Your task to perform on an android device: Go to Amazon Image 0: 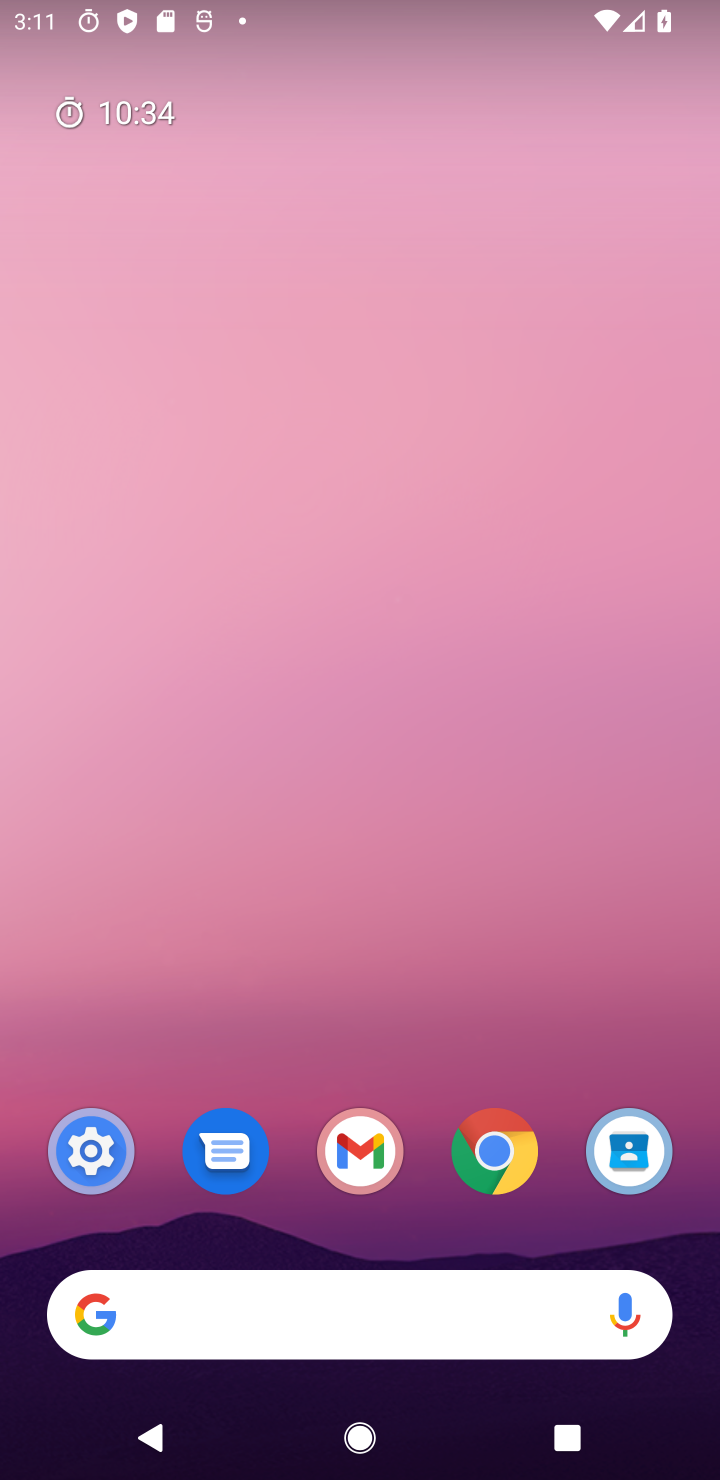
Step 0: drag from (374, 897) to (364, 103)
Your task to perform on an android device: Go to Amazon Image 1: 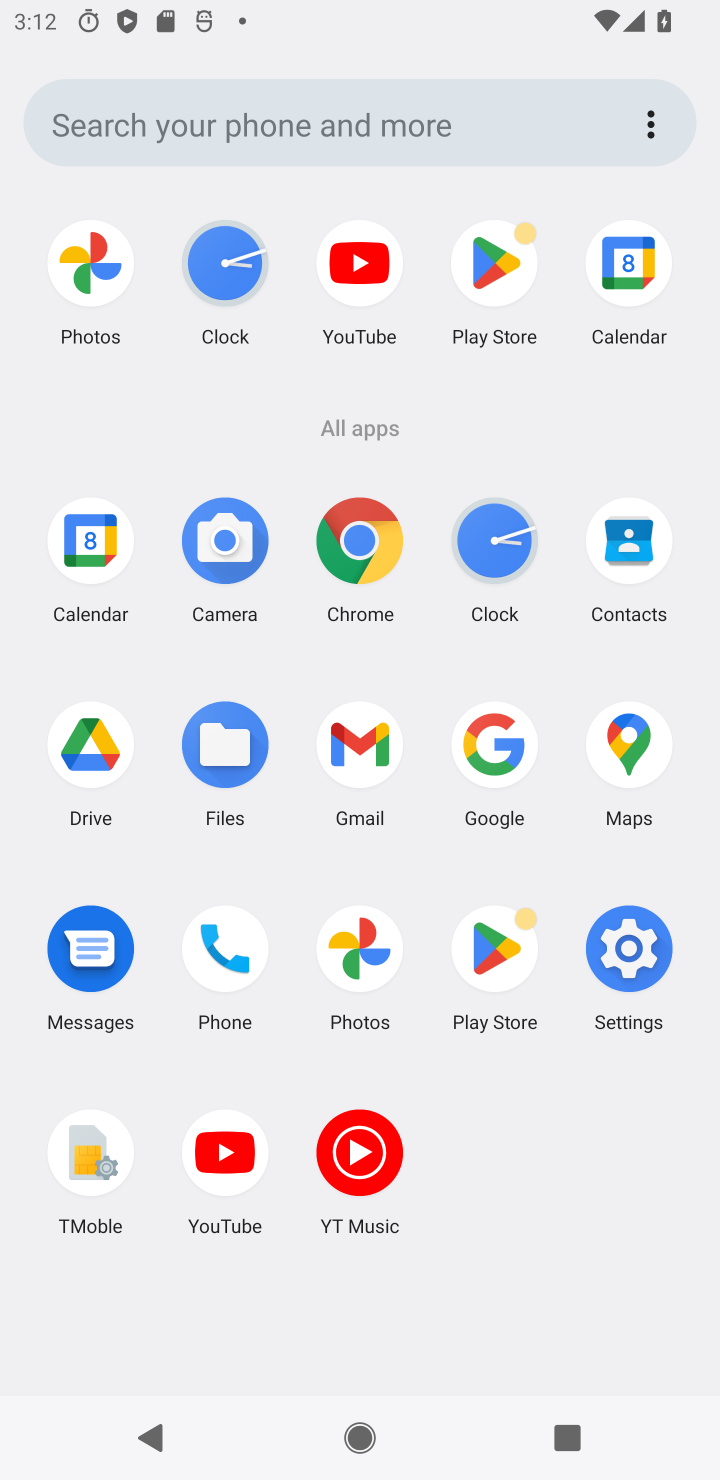
Step 1: click (349, 584)
Your task to perform on an android device: Go to Amazon Image 2: 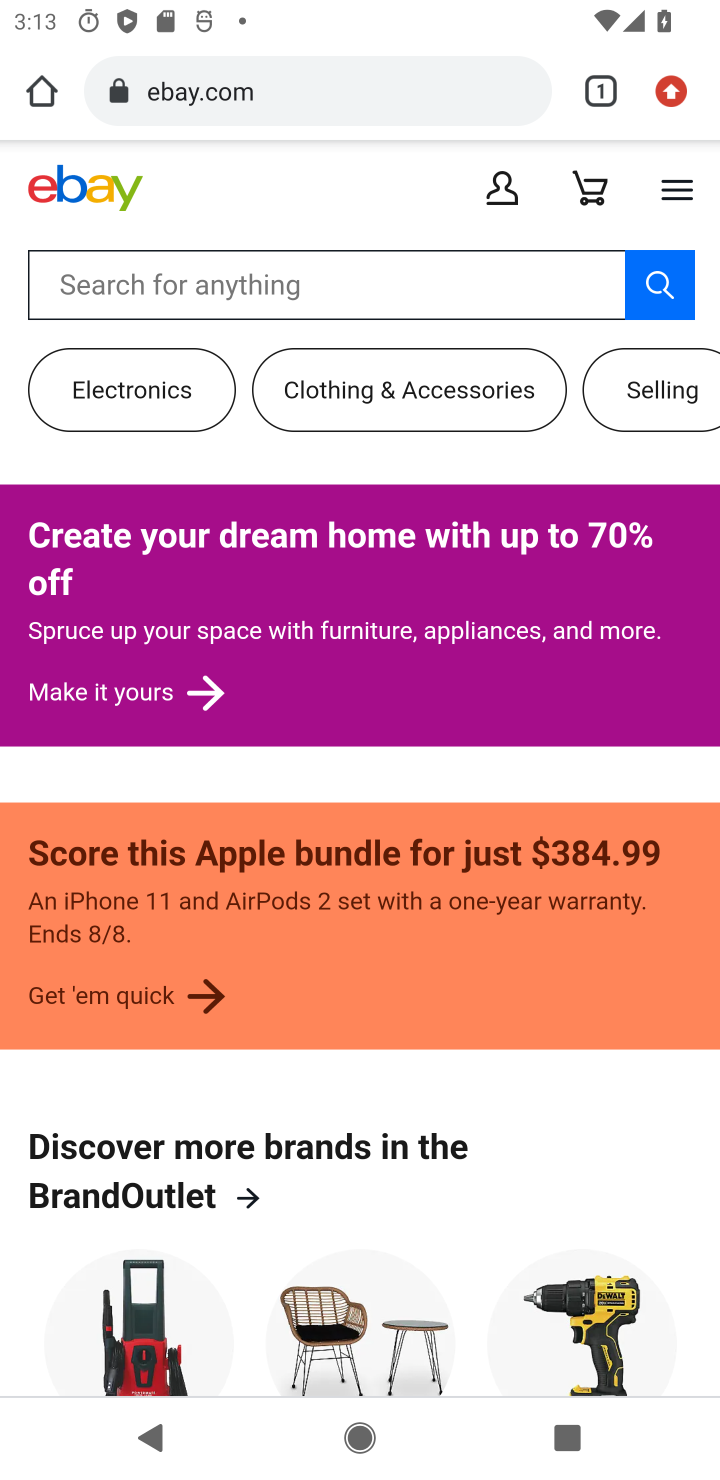
Step 2: click (255, 104)
Your task to perform on an android device: Go to Amazon Image 3: 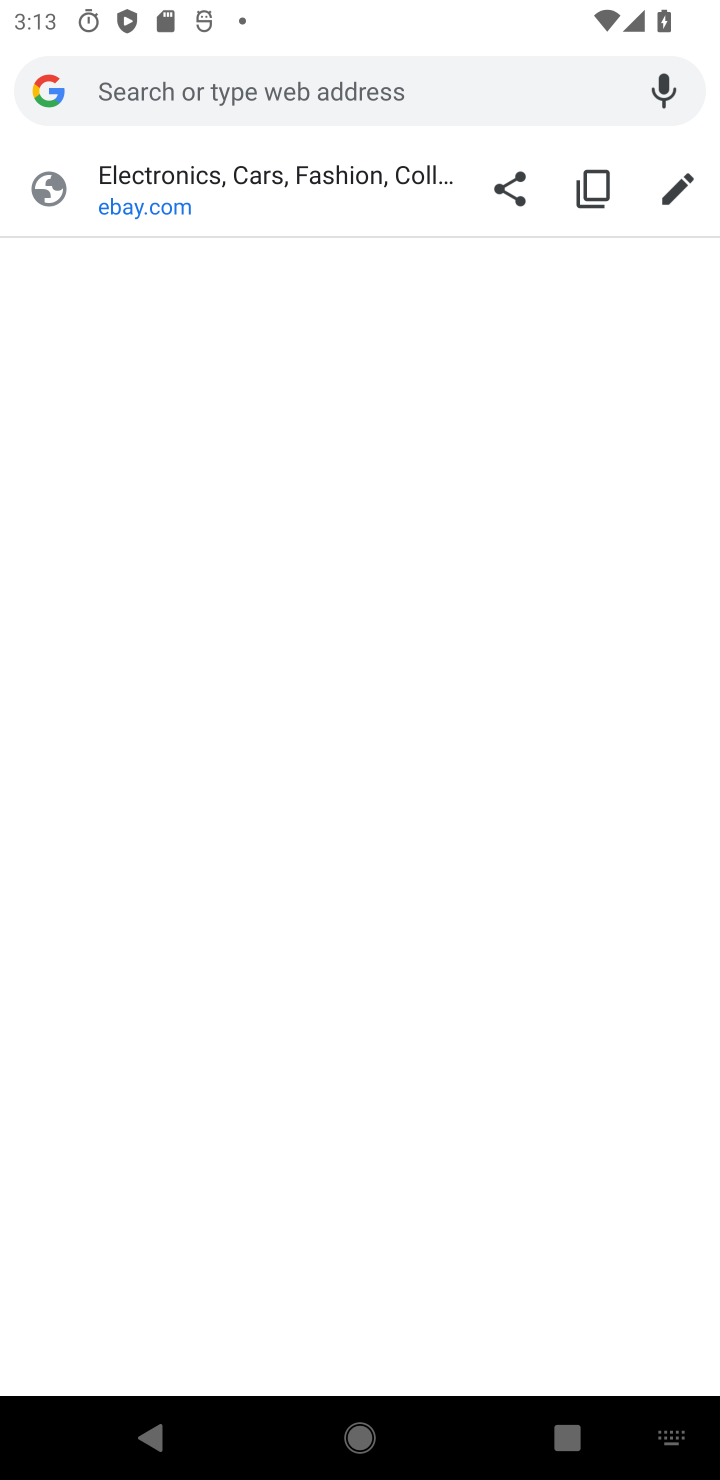
Step 3: type "Amazon"
Your task to perform on an android device: Go to Amazon Image 4: 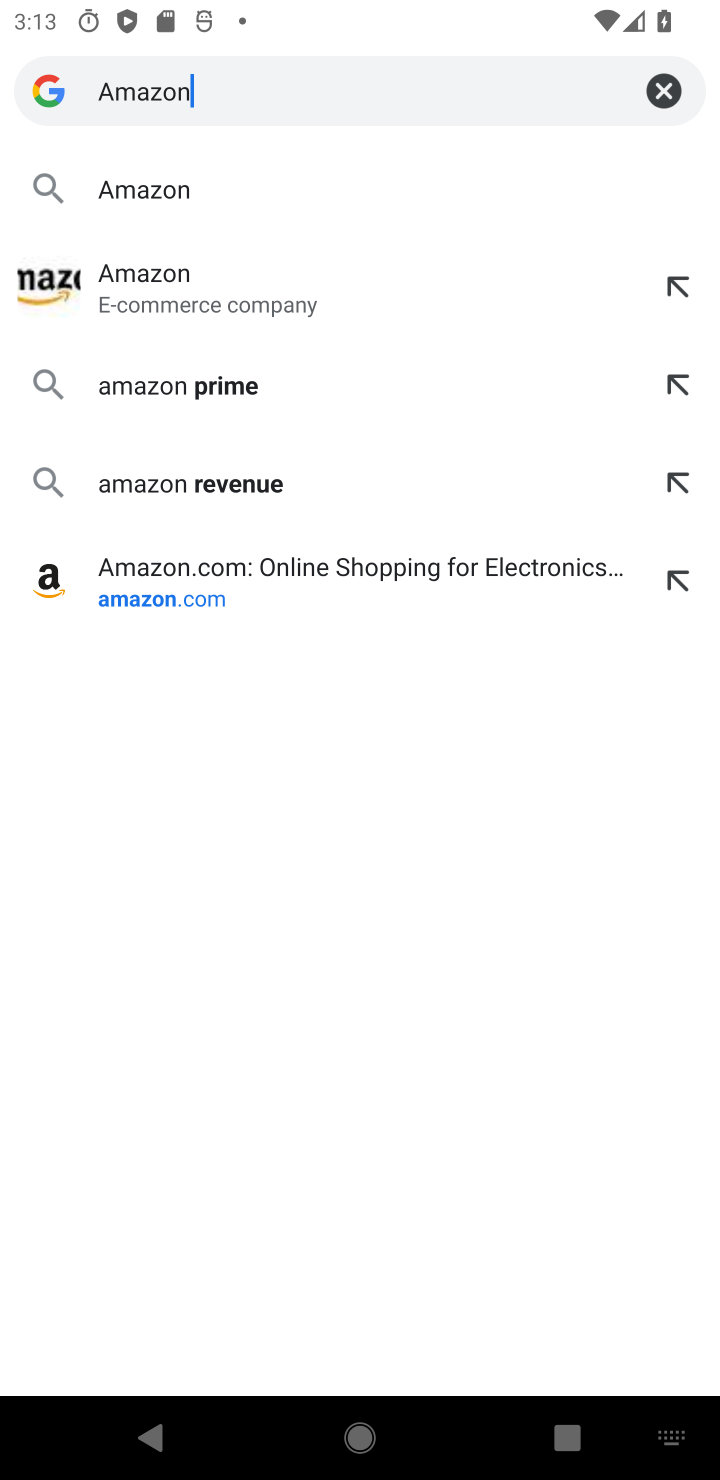
Step 4: click (149, 617)
Your task to perform on an android device: Go to Amazon Image 5: 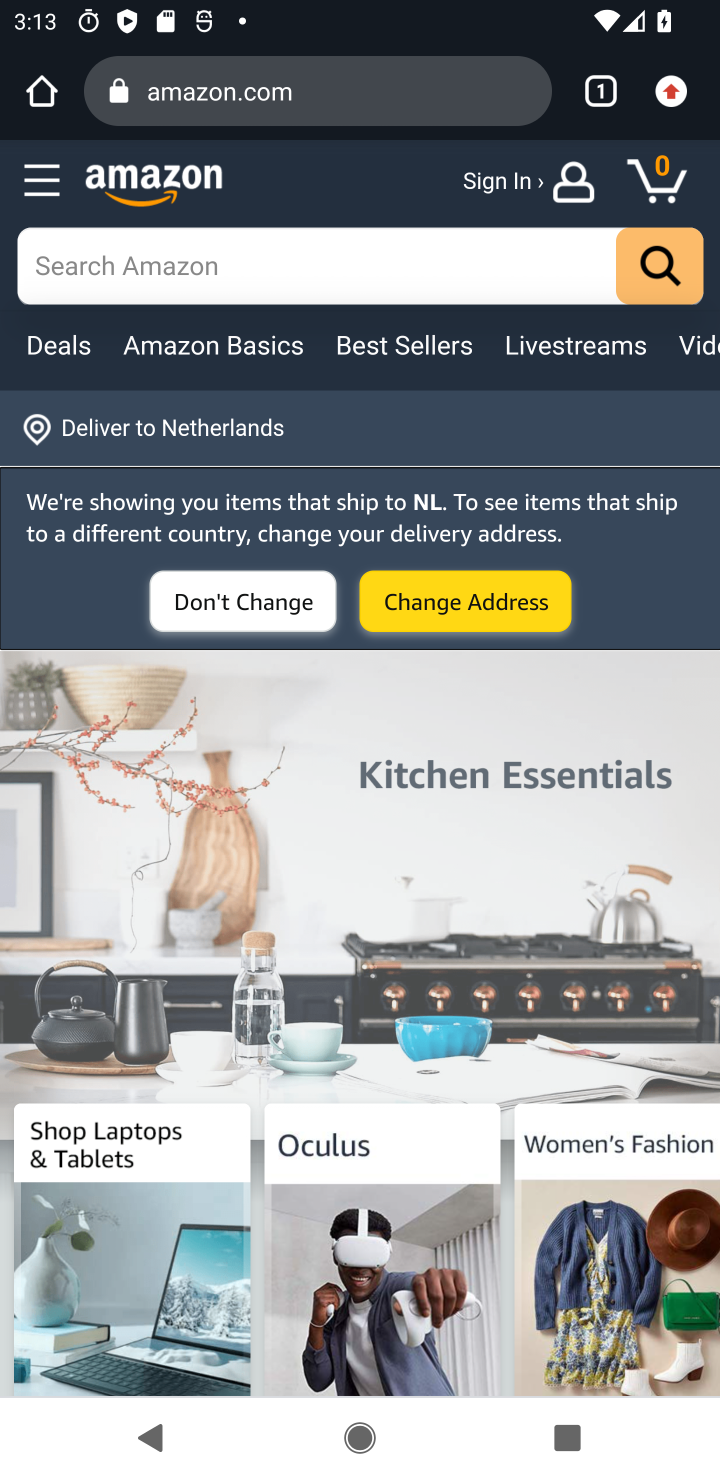
Step 5: task complete